Your task to perform on an android device: set the timer Image 0: 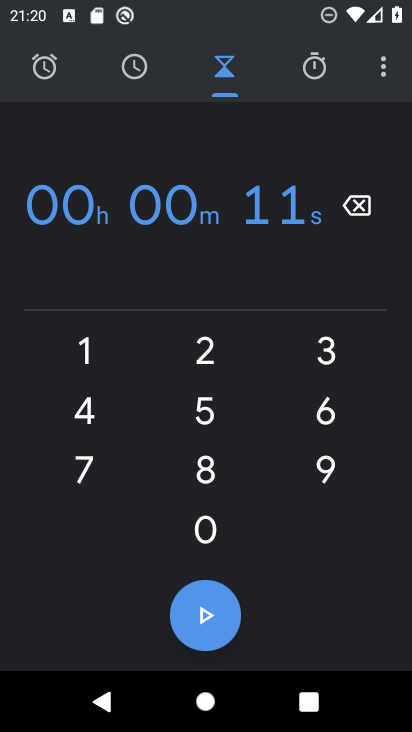
Step 0: click (224, 64)
Your task to perform on an android device: set the timer Image 1: 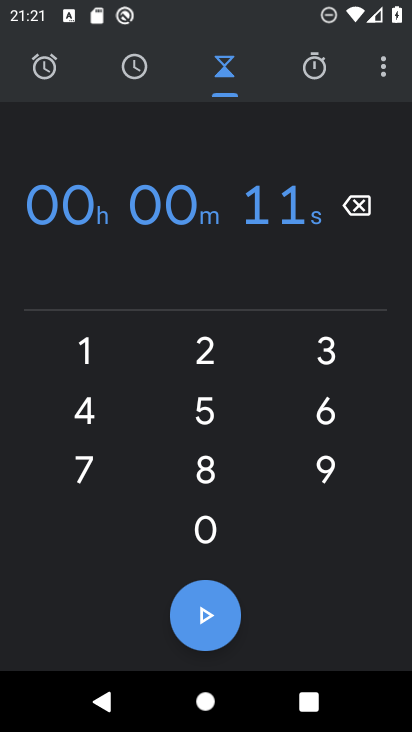
Step 1: task complete